Your task to perform on an android device: Go to eBay Image 0: 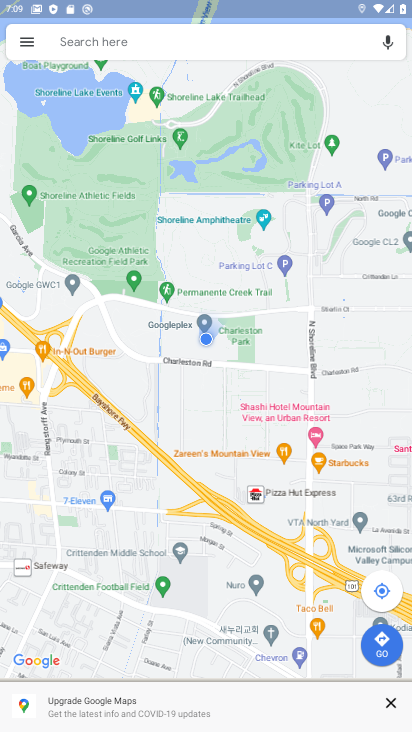
Step 0: press home button
Your task to perform on an android device: Go to eBay Image 1: 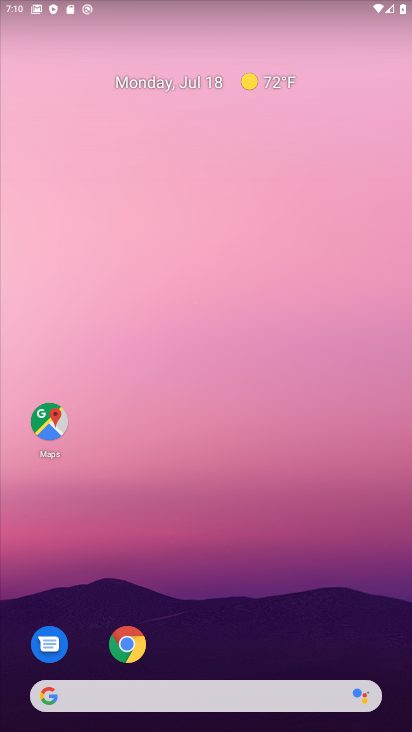
Step 1: drag from (366, 614) to (252, 59)
Your task to perform on an android device: Go to eBay Image 2: 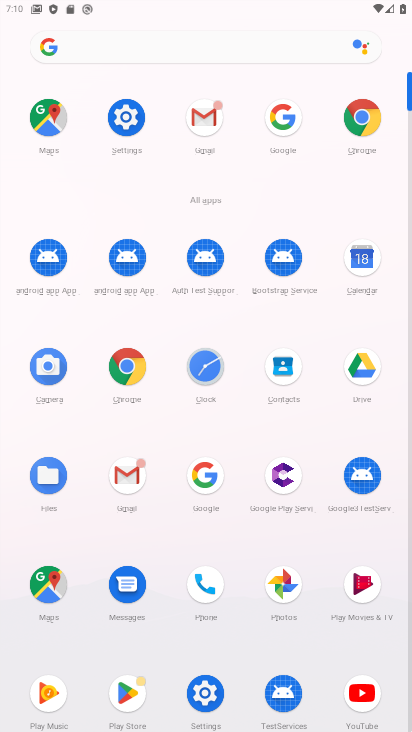
Step 2: click (202, 480)
Your task to perform on an android device: Go to eBay Image 3: 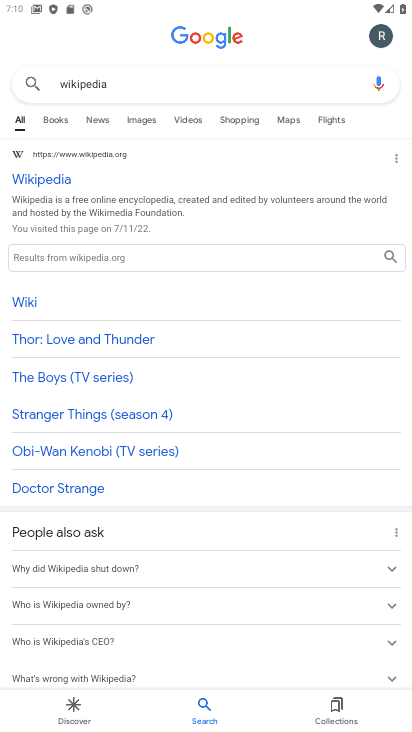
Step 3: press back button
Your task to perform on an android device: Go to eBay Image 4: 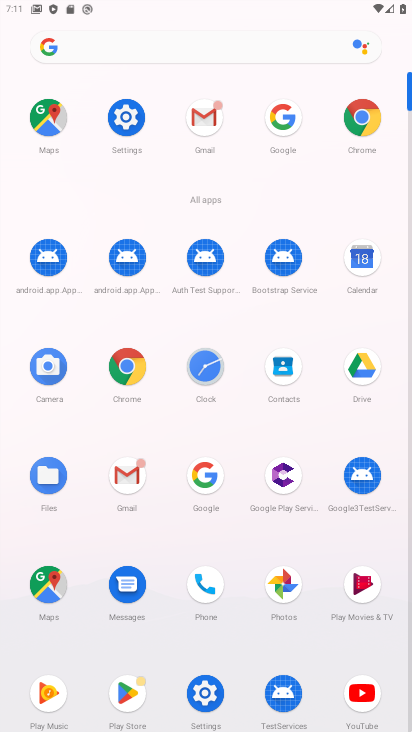
Step 4: click (202, 488)
Your task to perform on an android device: Go to eBay Image 5: 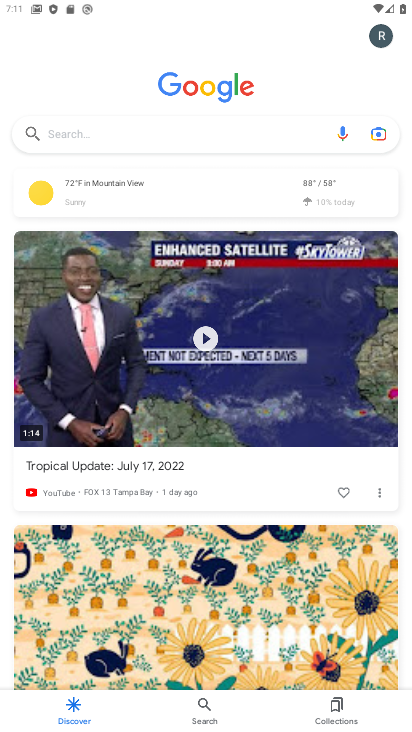
Step 5: click (71, 130)
Your task to perform on an android device: Go to eBay Image 6: 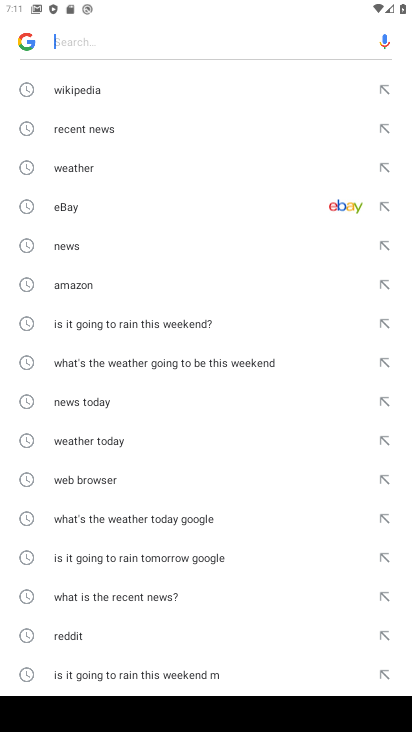
Step 6: click (69, 215)
Your task to perform on an android device: Go to eBay Image 7: 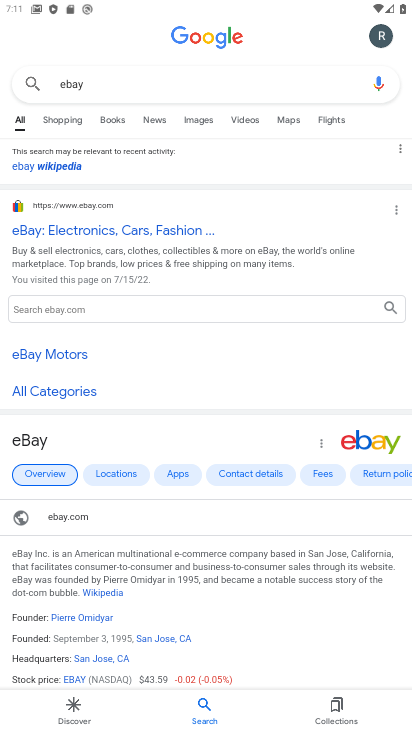
Step 7: task complete